Your task to perform on an android device: install app "Pluto TV - Live TV and Movies" Image 0: 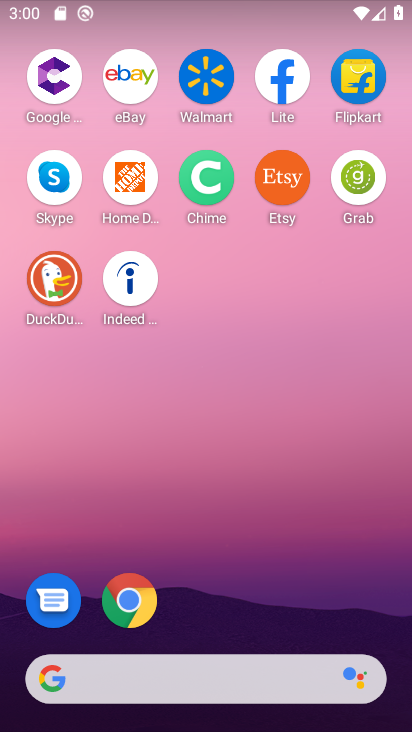
Step 0: drag from (281, 319) to (304, 23)
Your task to perform on an android device: install app "Pluto TV - Live TV and Movies" Image 1: 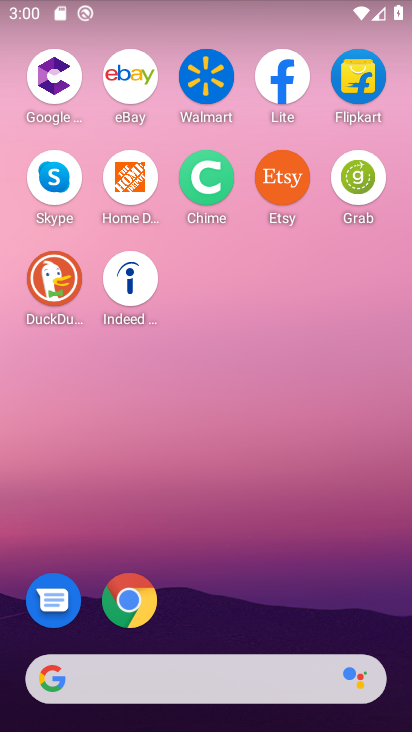
Step 1: drag from (237, 600) to (317, 40)
Your task to perform on an android device: install app "Pluto TV - Live TV and Movies" Image 2: 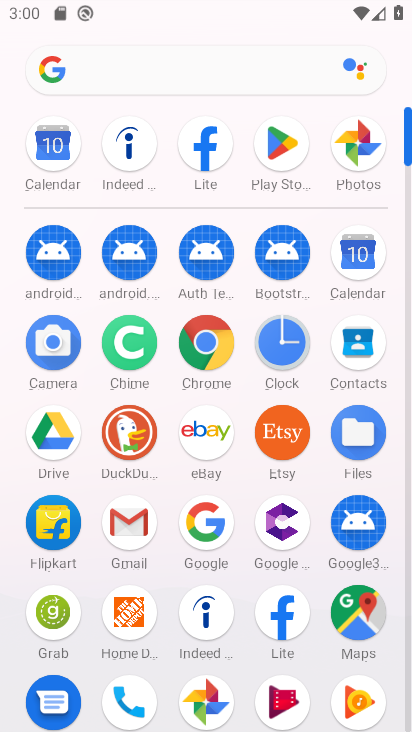
Step 2: click (285, 143)
Your task to perform on an android device: install app "Pluto TV - Live TV and Movies" Image 3: 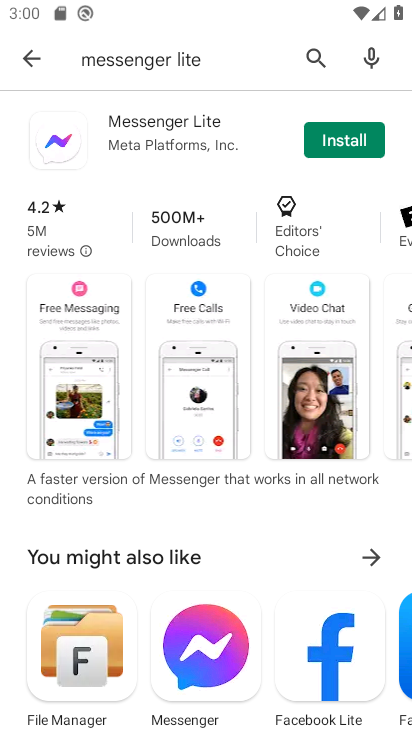
Step 3: click (279, 124)
Your task to perform on an android device: install app "Pluto TV - Live TV and Movies" Image 4: 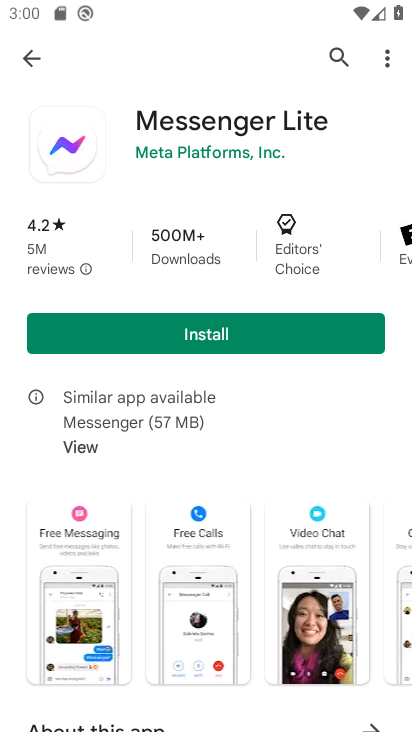
Step 4: click (321, 61)
Your task to perform on an android device: install app "Pluto TV - Live TV and Movies" Image 5: 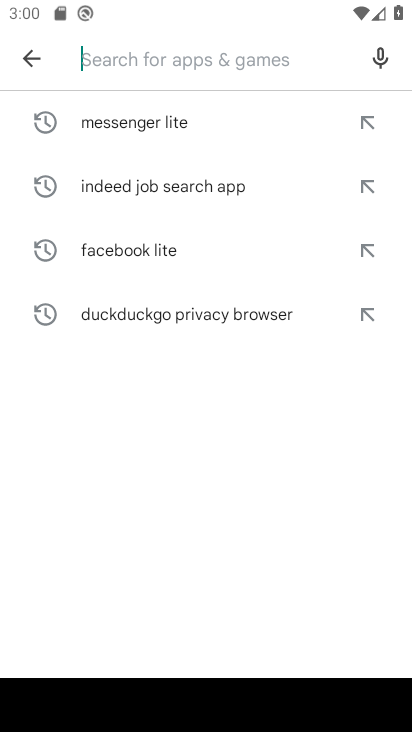
Step 5: type "Pluto TV"
Your task to perform on an android device: install app "Pluto TV - Live TV and Movies" Image 6: 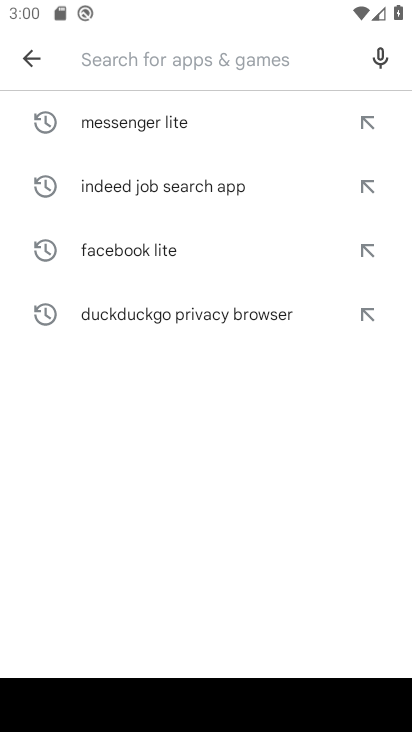
Step 6: click (107, 503)
Your task to perform on an android device: install app "Pluto TV - Live TV and Movies" Image 7: 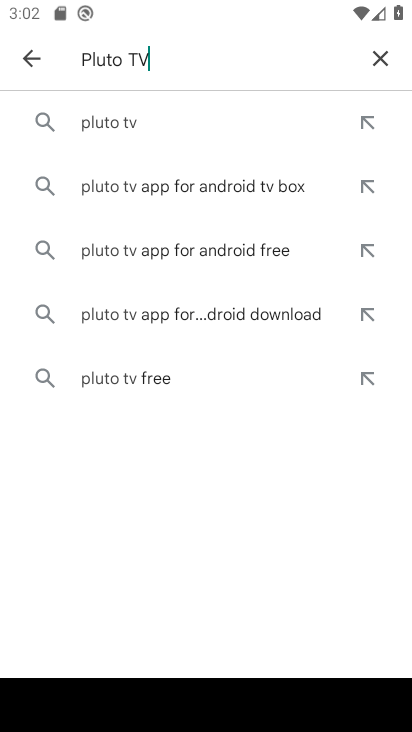
Step 7: click (141, 114)
Your task to perform on an android device: install app "Pluto TV - Live TV and Movies" Image 8: 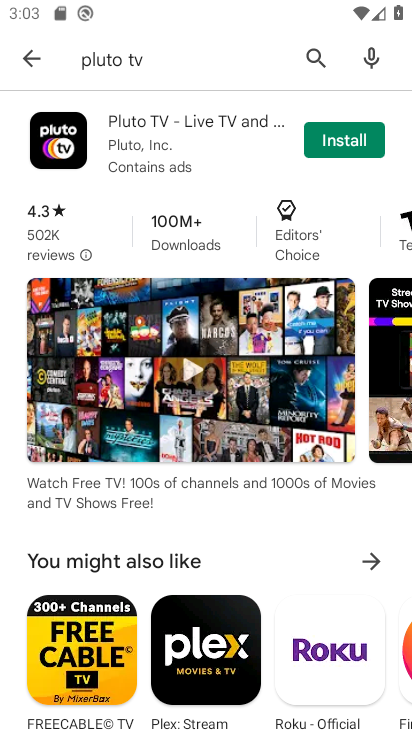
Step 8: click (346, 162)
Your task to perform on an android device: install app "Pluto TV - Live TV and Movies" Image 9: 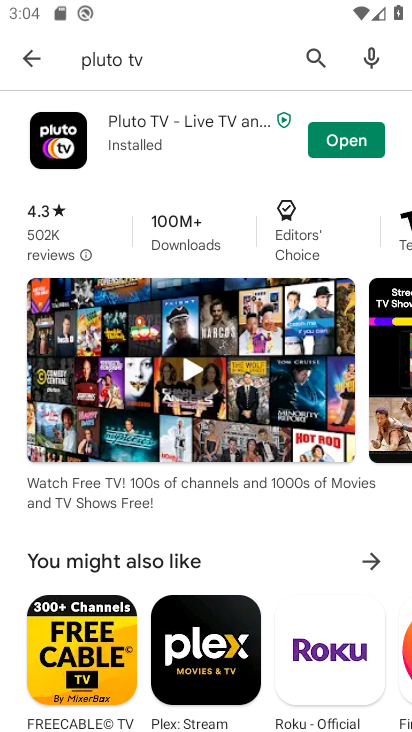
Step 9: task complete